Your task to perform on an android device: turn off picture-in-picture Image 0: 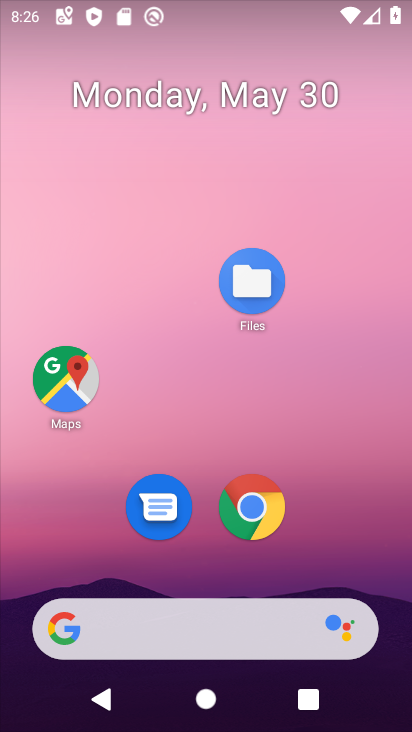
Step 0: click (258, 501)
Your task to perform on an android device: turn off picture-in-picture Image 1: 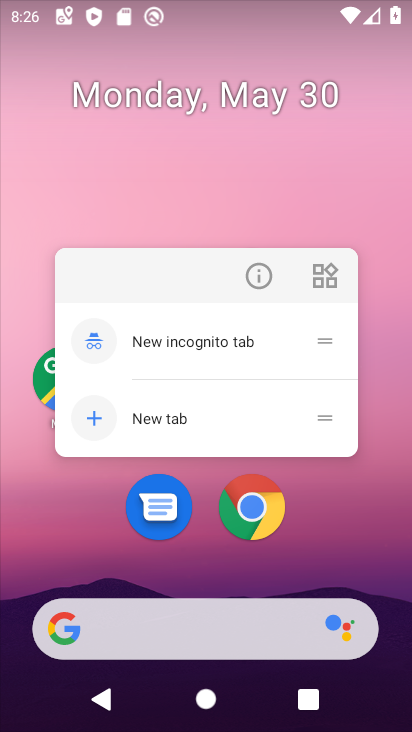
Step 1: click (260, 286)
Your task to perform on an android device: turn off picture-in-picture Image 2: 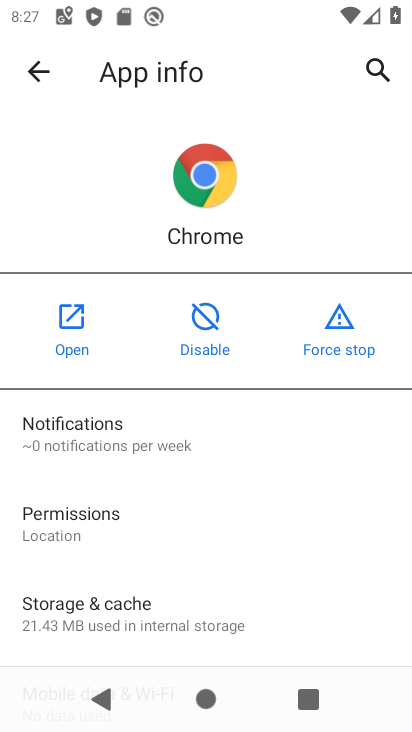
Step 2: drag from (148, 553) to (223, 81)
Your task to perform on an android device: turn off picture-in-picture Image 3: 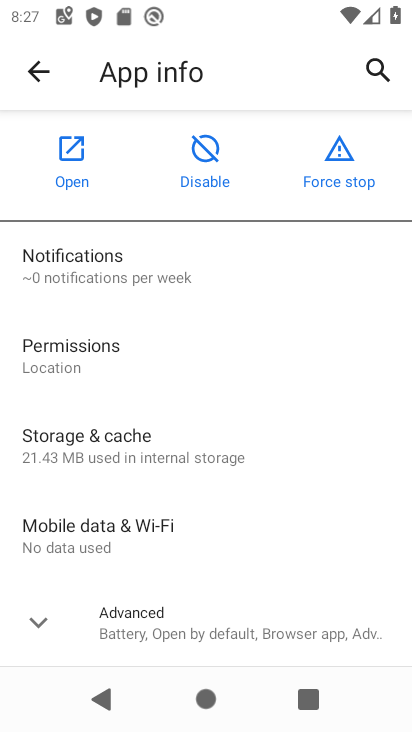
Step 3: click (111, 630)
Your task to perform on an android device: turn off picture-in-picture Image 4: 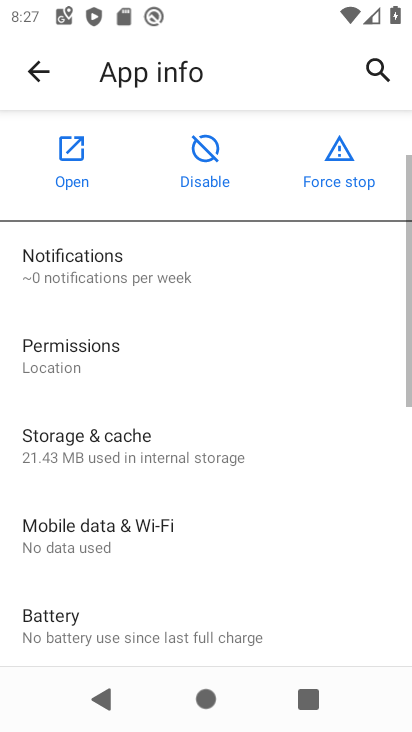
Step 4: drag from (112, 629) to (166, 202)
Your task to perform on an android device: turn off picture-in-picture Image 5: 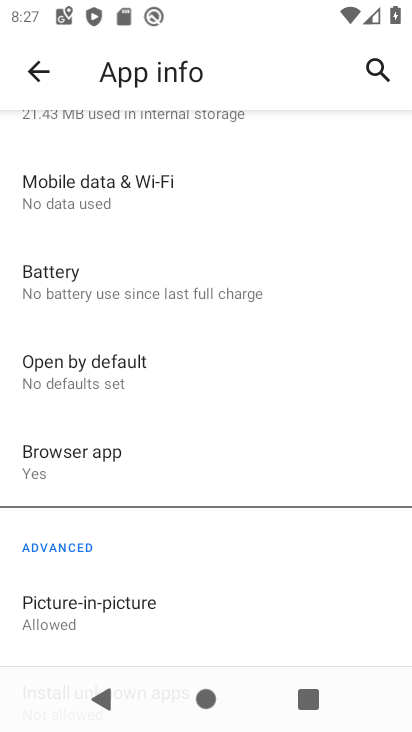
Step 5: drag from (148, 610) to (168, 408)
Your task to perform on an android device: turn off picture-in-picture Image 6: 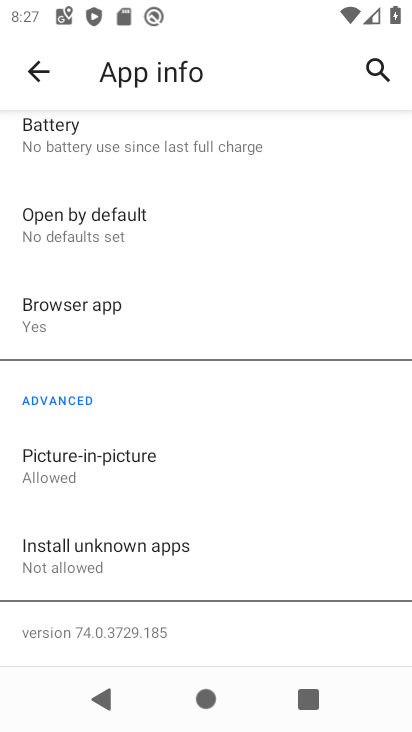
Step 6: click (91, 452)
Your task to perform on an android device: turn off picture-in-picture Image 7: 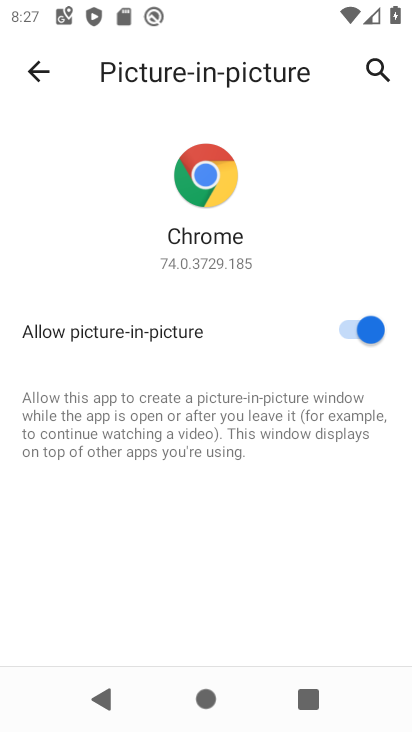
Step 7: click (328, 330)
Your task to perform on an android device: turn off picture-in-picture Image 8: 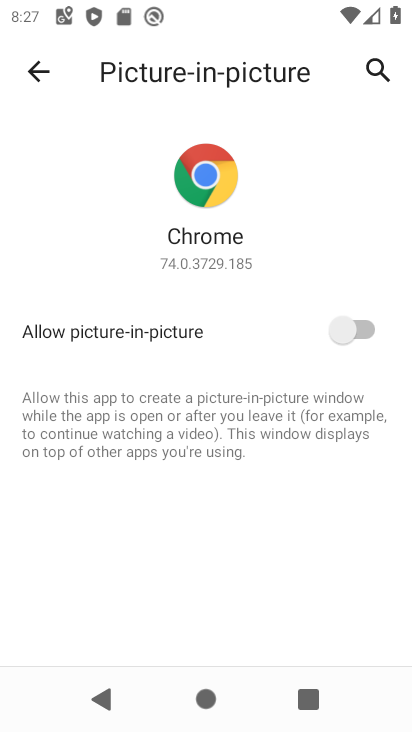
Step 8: task complete